Your task to perform on an android device: Search for vegetarian restaurants on Maps Image 0: 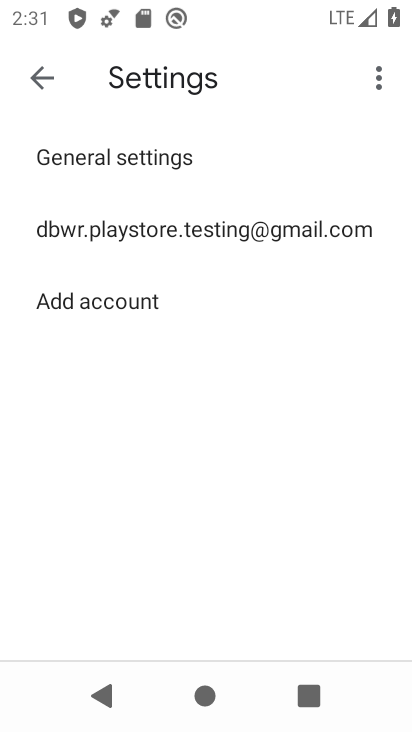
Step 0: press home button
Your task to perform on an android device: Search for vegetarian restaurants on Maps Image 1: 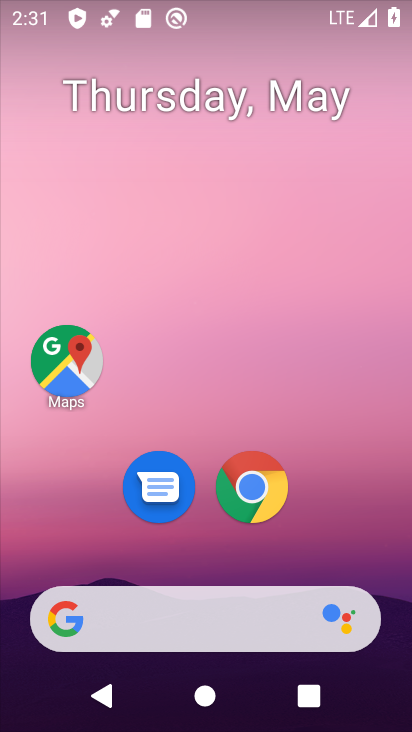
Step 1: drag from (302, 553) to (374, 148)
Your task to perform on an android device: Search for vegetarian restaurants on Maps Image 2: 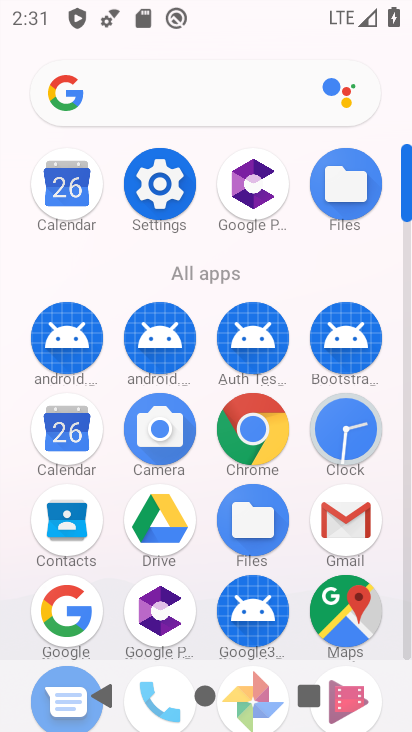
Step 2: click (361, 608)
Your task to perform on an android device: Search for vegetarian restaurants on Maps Image 3: 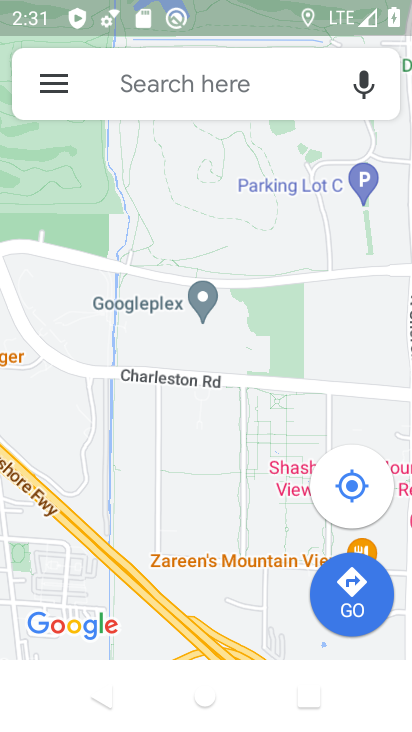
Step 3: click (260, 80)
Your task to perform on an android device: Search for vegetarian restaurants on Maps Image 4: 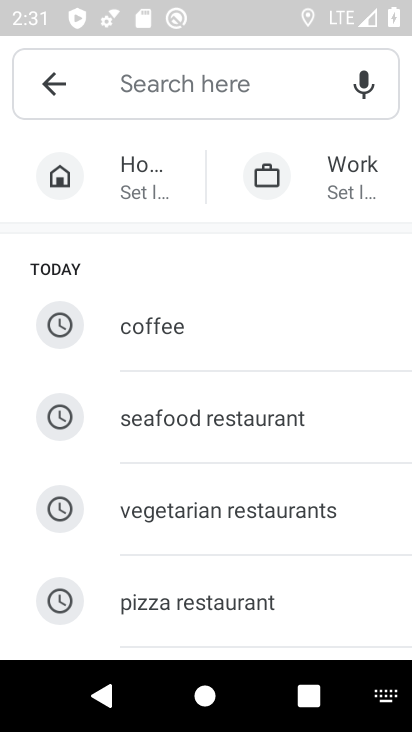
Step 4: click (246, 505)
Your task to perform on an android device: Search for vegetarian restaurants on Maps Image 5: 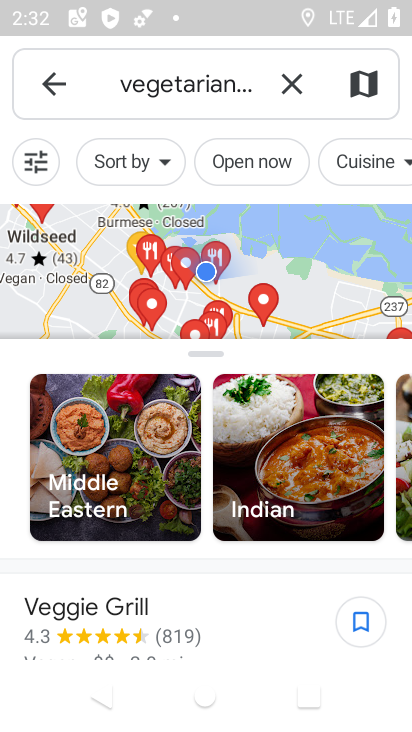
Step 5: task complete